Your task to perform on an android device: Check the weather Image 0: 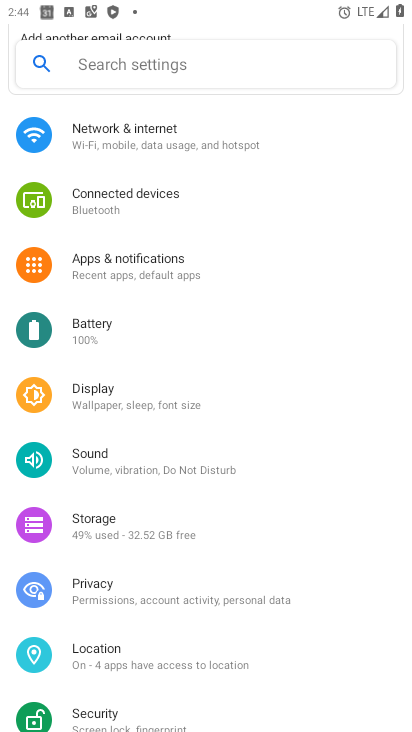
Step 0: press home button
Your task to perform on an android device: Check the weather Image 1: 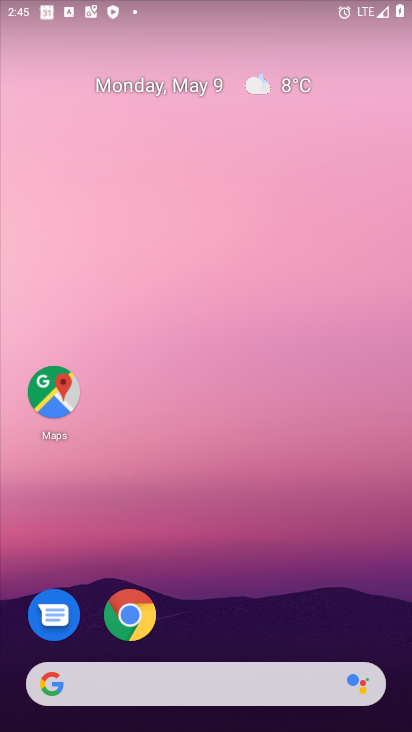
Step 1: click (288, 85)
Your task to perform on an android device: Check the weather Image 2: 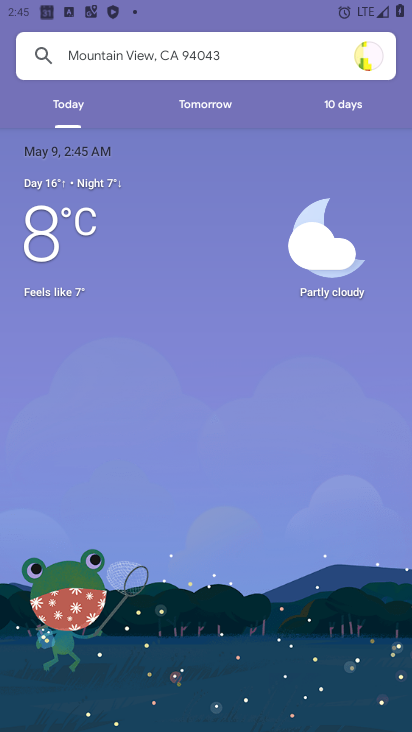
Step 2: drag from (229, 641) to (246, 204)
Your task to perform on an android device: Check the weather Image 3: 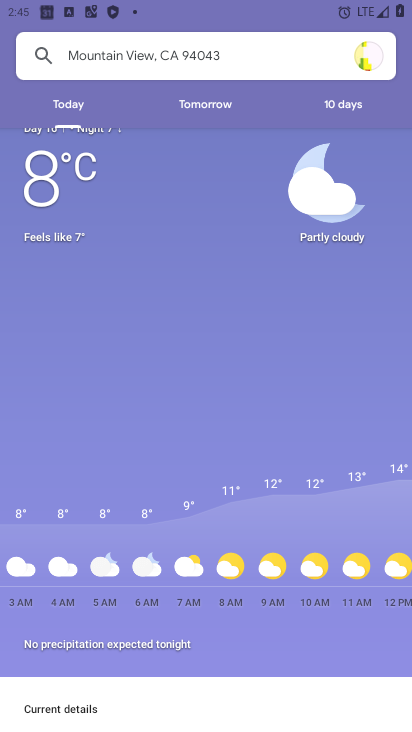
Step 3: drag from (332, 561) to (0, 548)
Your task to perform on an android device: Check the weather Image 4: 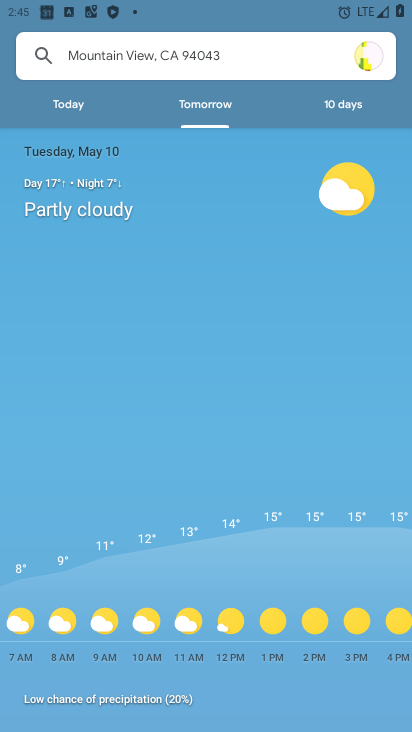
Step 4: drag from (49, 457) to (389, 466)
Your task to perform on an android device: Check the weather Image 5: 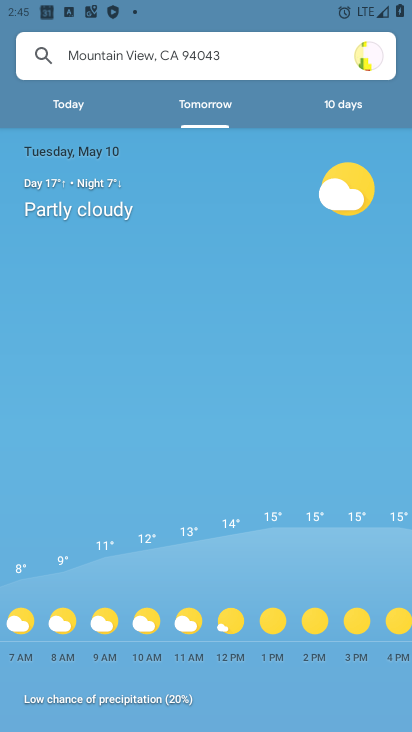
Step 5: click (69, 101)
Your task to perform on an android device: Check the weather Image 6: 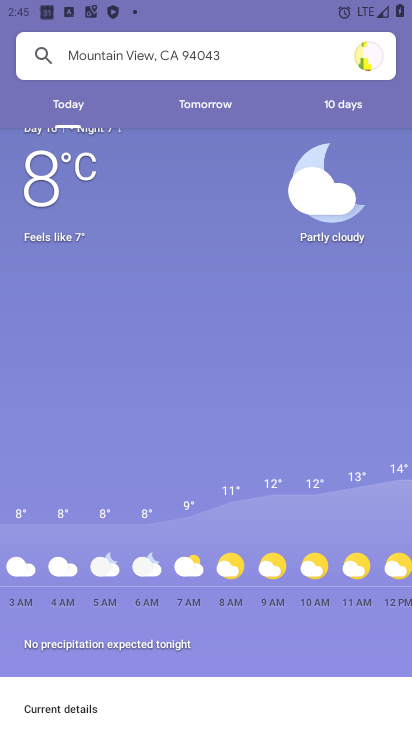
Step 6: task complete